Your task to perform on an android device: toggle wifi Image 0: 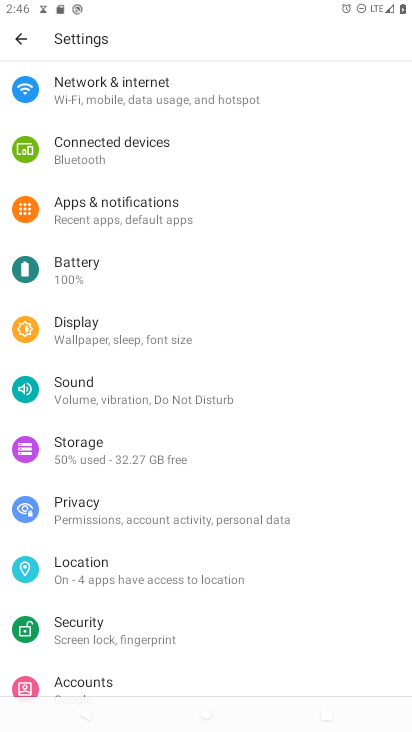
Step 0: click (207, 91)
Your task to perform on an android device: toggle wifi Image 1: 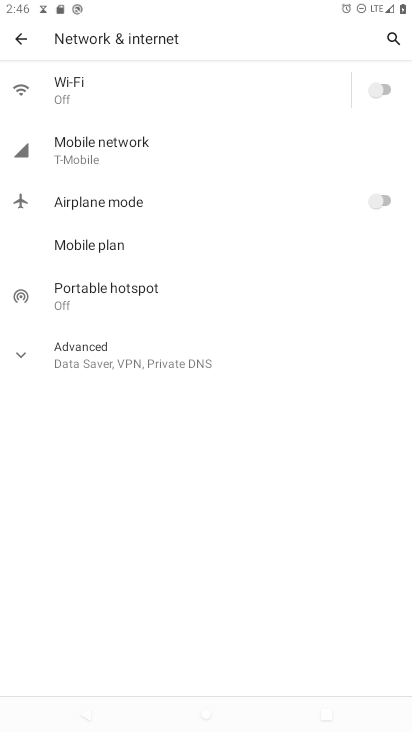
Step 1: click (381, 88)
Your task to perform on an android device: toggle wifi Image 2: 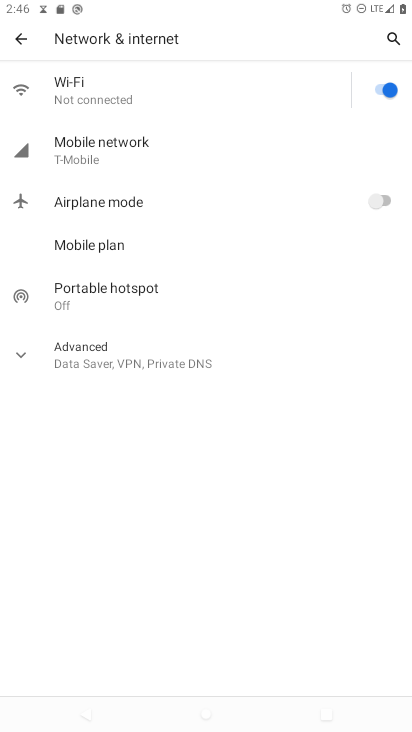
Step 2: task complete